Your task to perform on an android device: Open Yahoo.com Image 0: 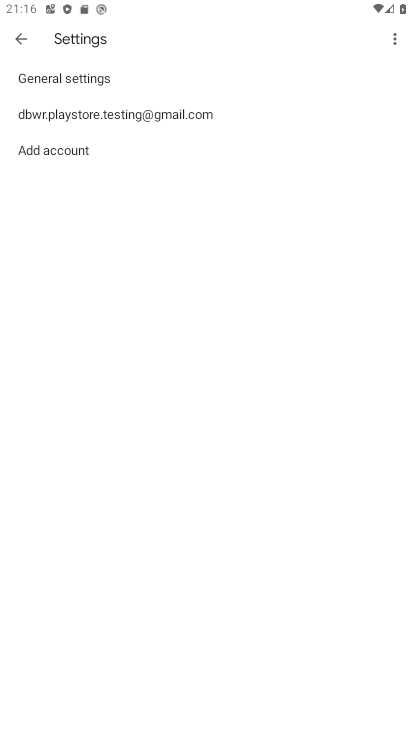
Step 0: press back button
Your task to perform on an android device: Open Yahoo.com Image 1: 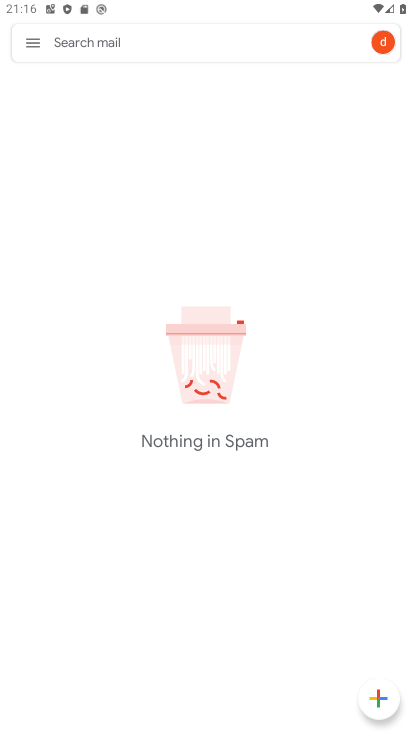
Step 1: press home button
Your task to perform on an android device: Open Yahoo.com Image 2: 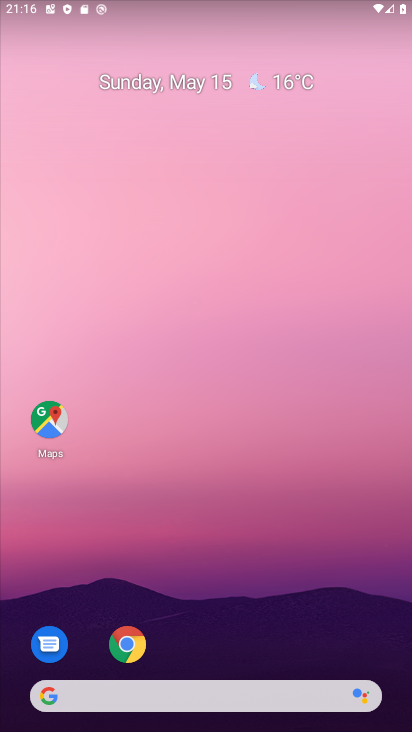
Step 2: click (110, 649)
Your task to perform on an android device: Open Yahoo.com Image 3: 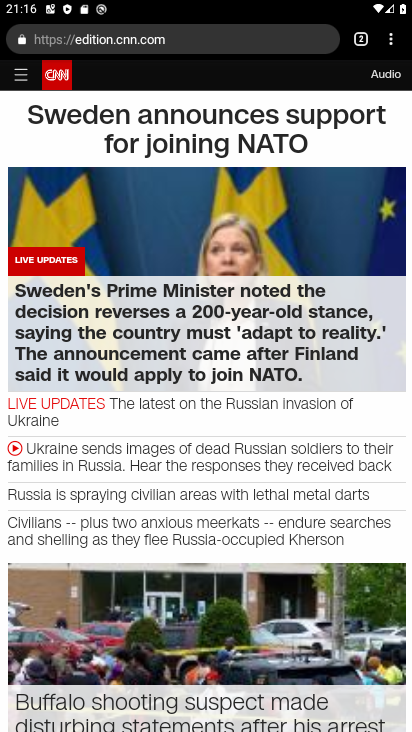
Step 3: click (366, 33)
Your task to perform on an android device: Open Yahoo.com Image 4: 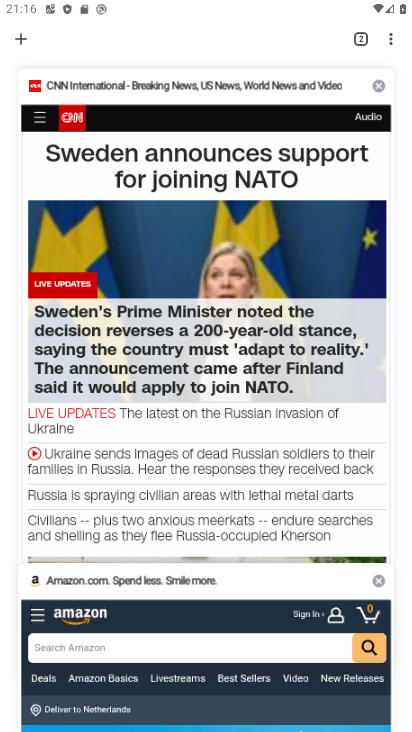
Step 4: click (21, 31)
Your task to perform on an android device: Open Yahoo.com Image 5: 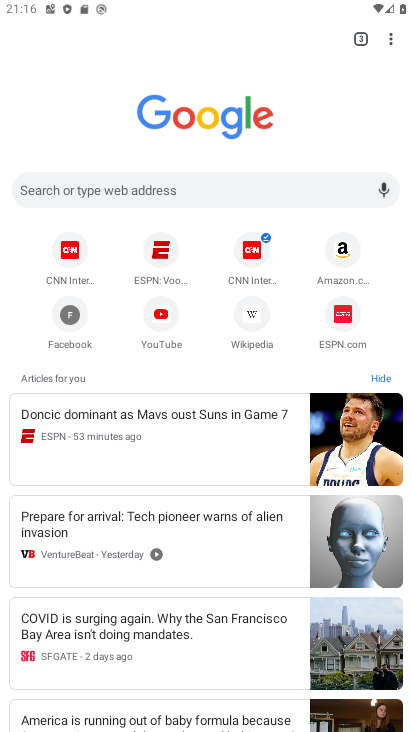
Step 5: click (157, 188)
Your task to perform on an android device: Open Yahoo.com Image 6: 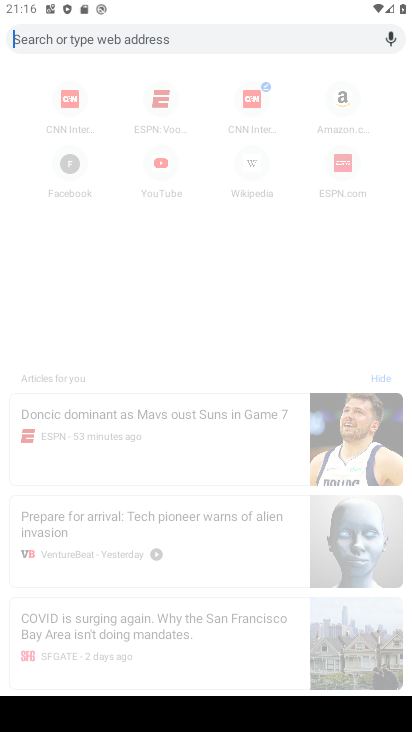
Step 6: type "yahoo.com"
Your task to perform on an android device: Open Yahoo.com Image 7: 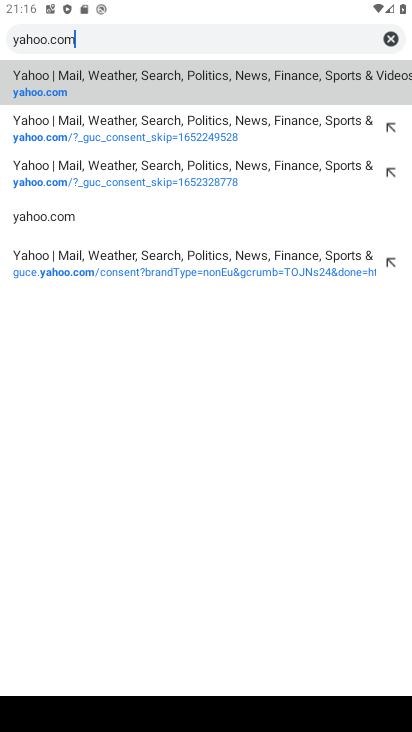
Step 7: click (169, 75)
Your task to perform on an android device: Open Yahoo.com Image 8: 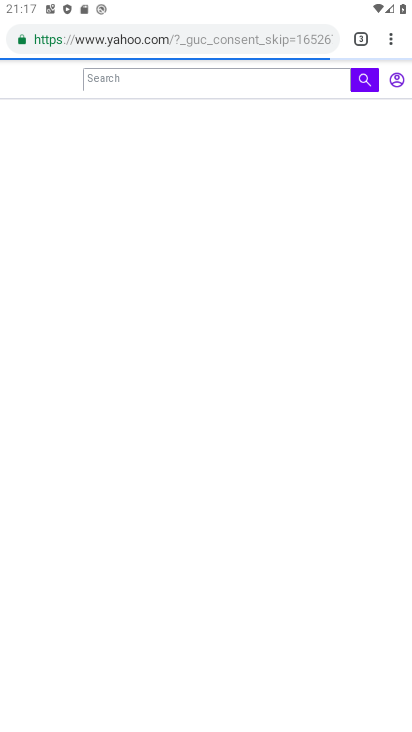
Step 8: task complete